Your task to perform on an android device: toggle airplane mode Image 0: 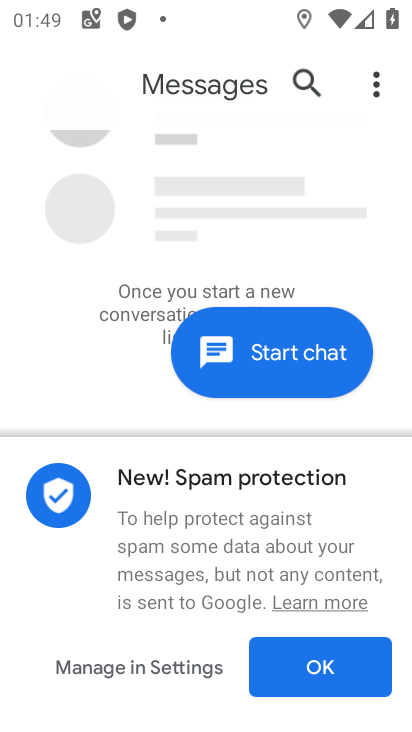
Step 0: press home button
Your task to perform on an android device: toggle airplane mode Image 1: 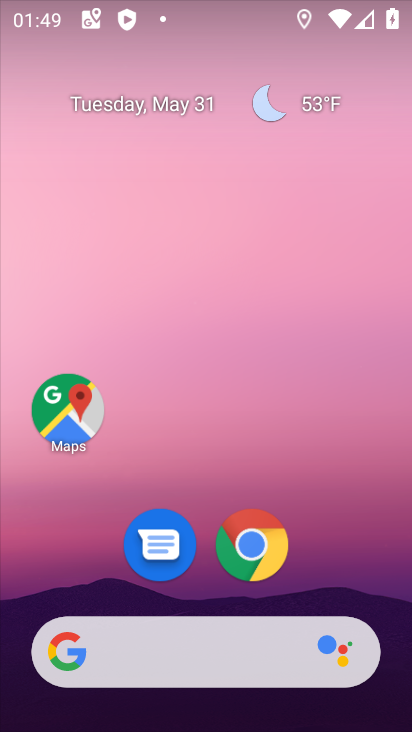
Step 1: drag from (357, 4) to (344, 524)
Your task to perform on an android device: toggle airplane mode Image 2: 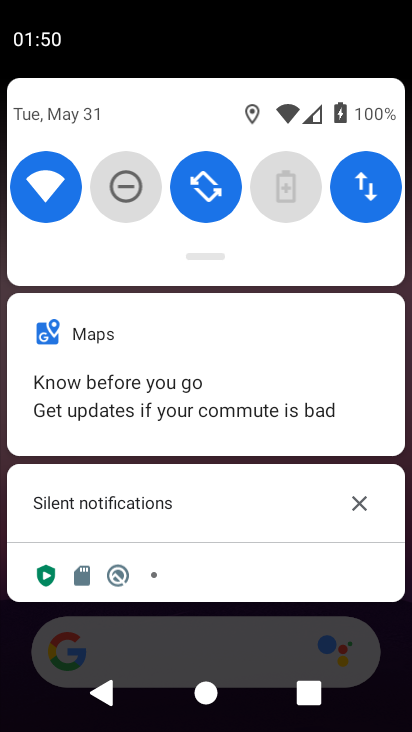
Step 2: drag from (263, 219) to (289, 496)
Your task to perform on an android device: toggle airplane mode Image 3: 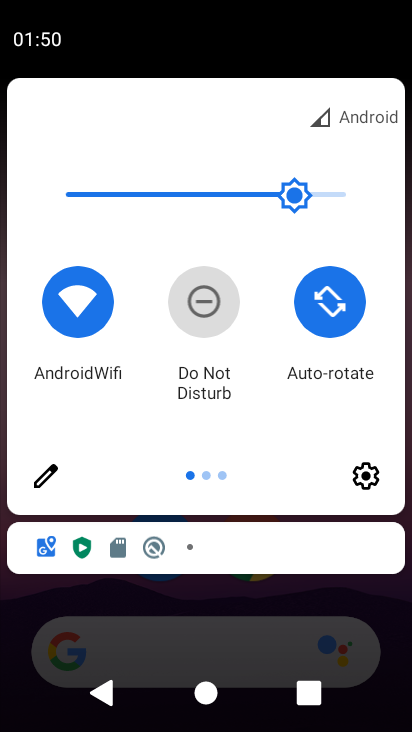
Step 3: drag from (379, 391) to (13, 397)
Your task to perform on an android device: toggle airplane mode Image 4: 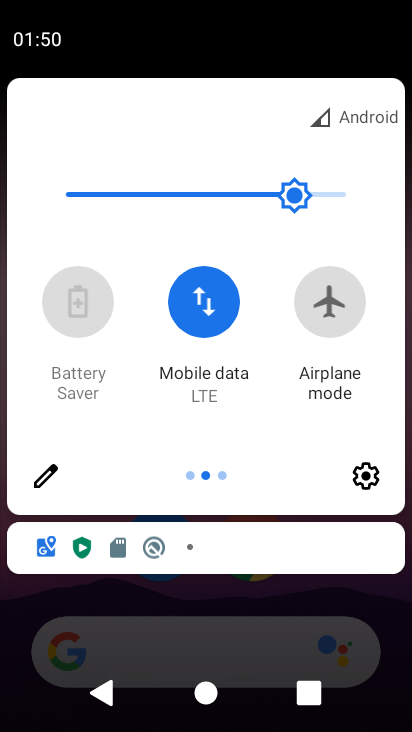
Step 4: click (324, 307)
Your task to perform on an android device: toggle airplane mode Image 5: 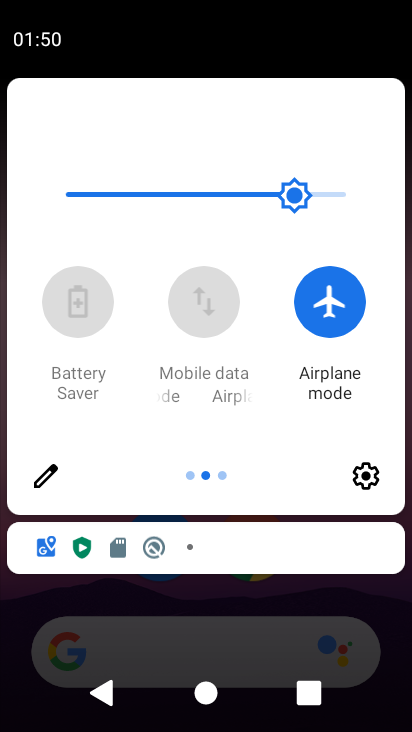
Step 5: task complete